Your task to perform on an android device: turn on airplane mode Image 0: 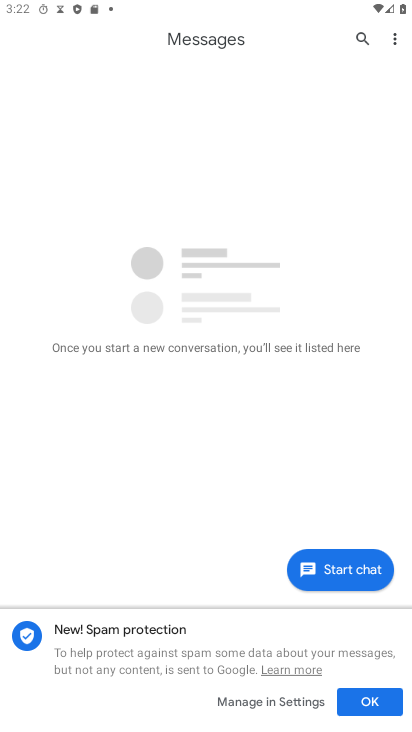
Step 0: press home button
Your task to perform on an android device: turn on airplane mode Image 1: 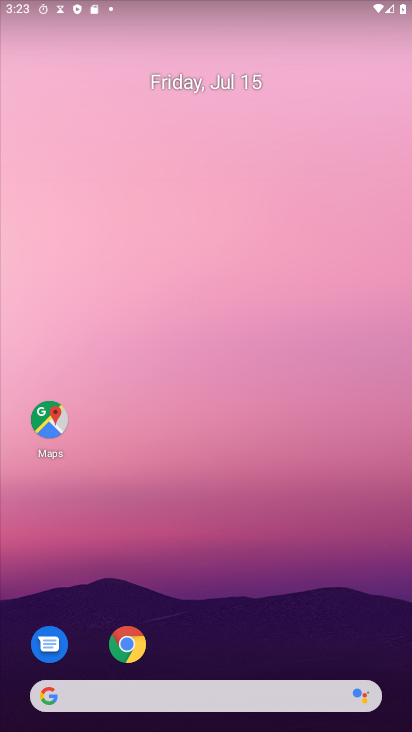
Step 1: drag from (238, 20) to (280, 638)
Your task to perform on an android device: turn on airplane mode Image 2: 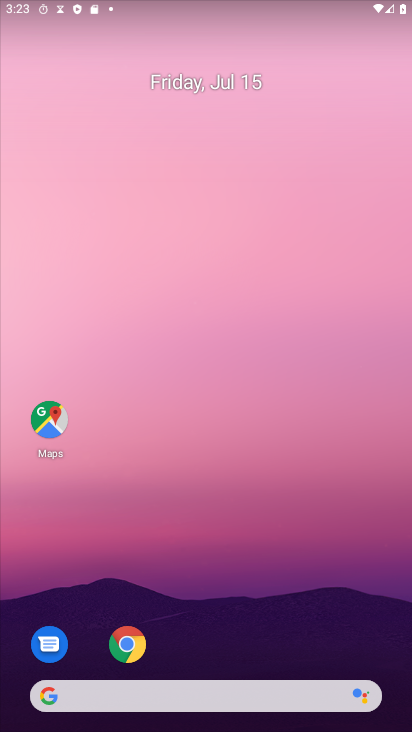
Step 2: drag from (240, 2) to (242, 680)
Your task to perform on an android device: turn on airplane mode Image 3: 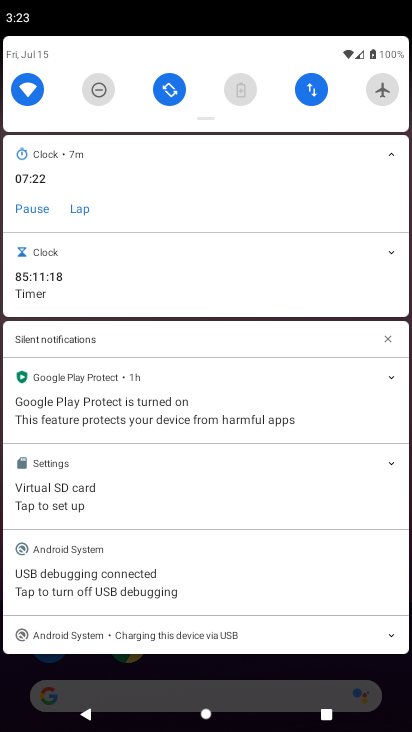
Step 3: drag from (235, 130) to (228, 631)
Your task to perform on an android device: turn on airplane mode Image 4: 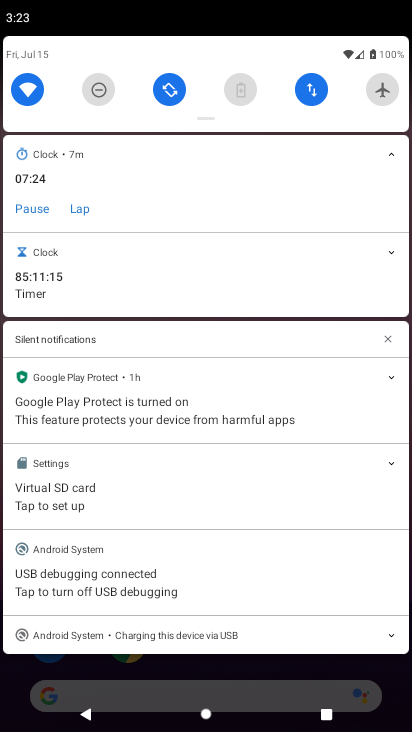
Step 4: drag from (201, 114) to (226, 500)
Your task to perform on an android device: turn on airplane mode Image 5: 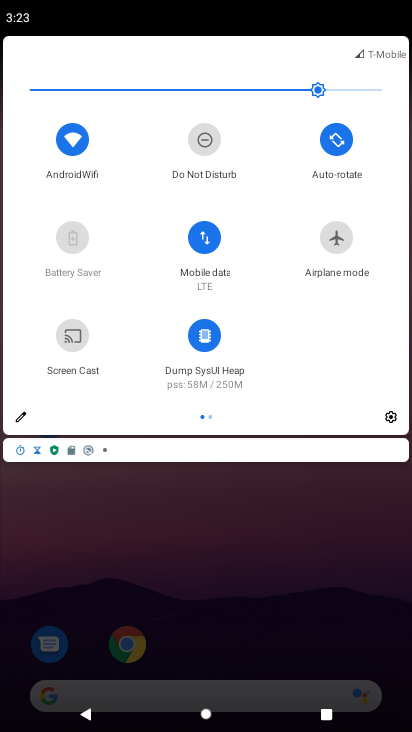
Step 5: click (346, 237)
Your task to perform on an android device: turn on airplane mode Image 6: 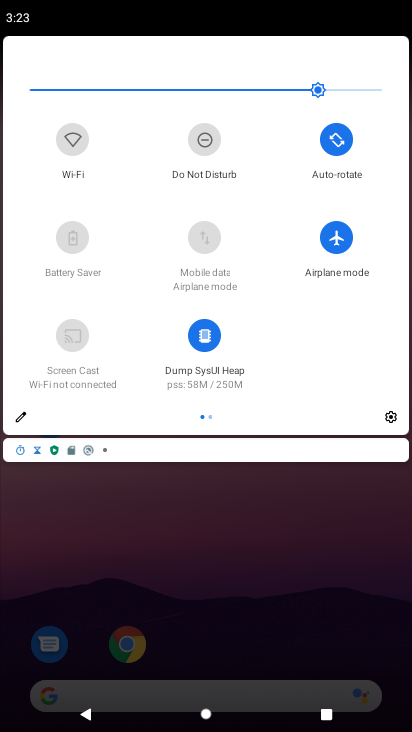
Step 6: task complete